Your task to perform on an android device: find photos in the google photos app Image 0: 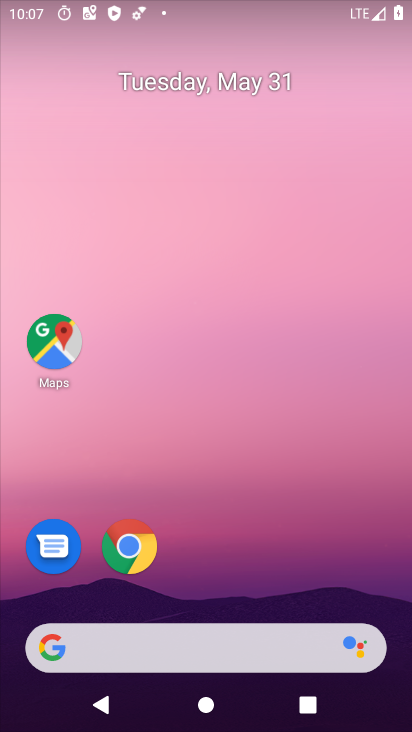
Step 0: drag from (313, 548) to (376, 53)
Your task to perform on an android device: find photos in the google photos app Image 1: 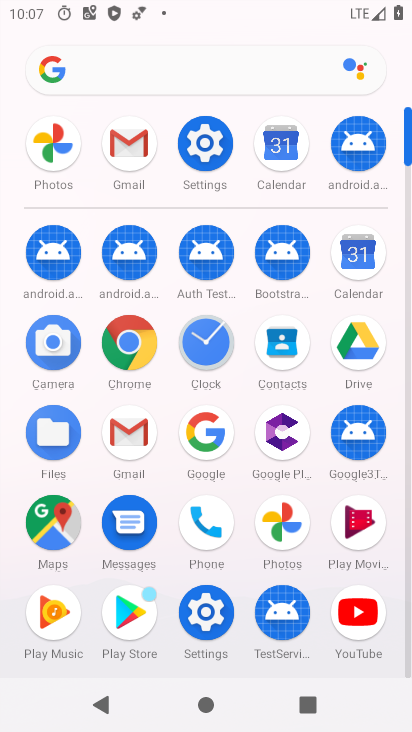
Step 1: click (268, 527)
Your task to perform on an android device: find photos in the google photos app Image 2: 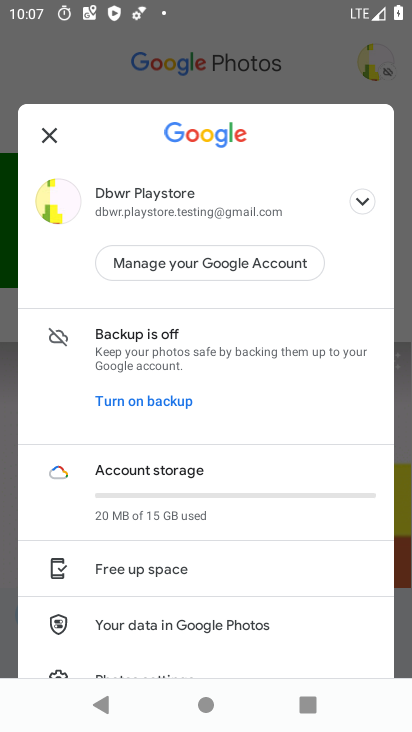
Step 2: click (53, 135)
Your task to perform on an android device: find photos in the google photos app Image 3: 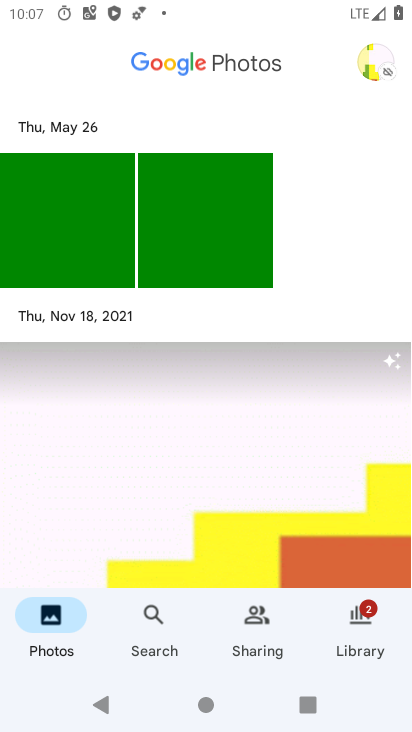
Step 3: task complete